Your task to perform on an android device: all mails in gmail Image 0: 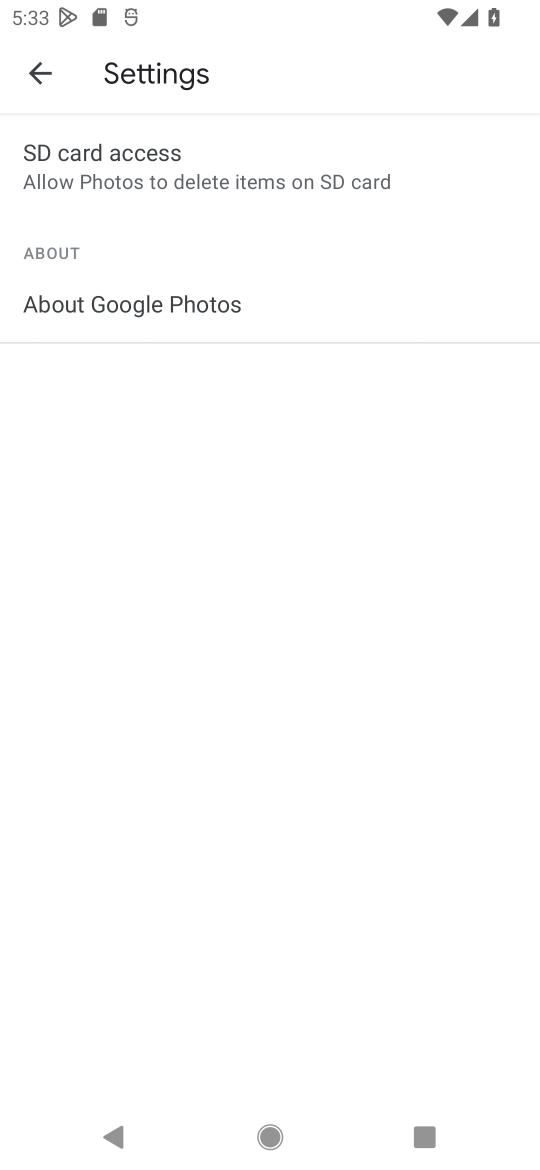
Step 0: click (270, 1127)
Your task to perform on an android device: all mails in gmail Image 1: 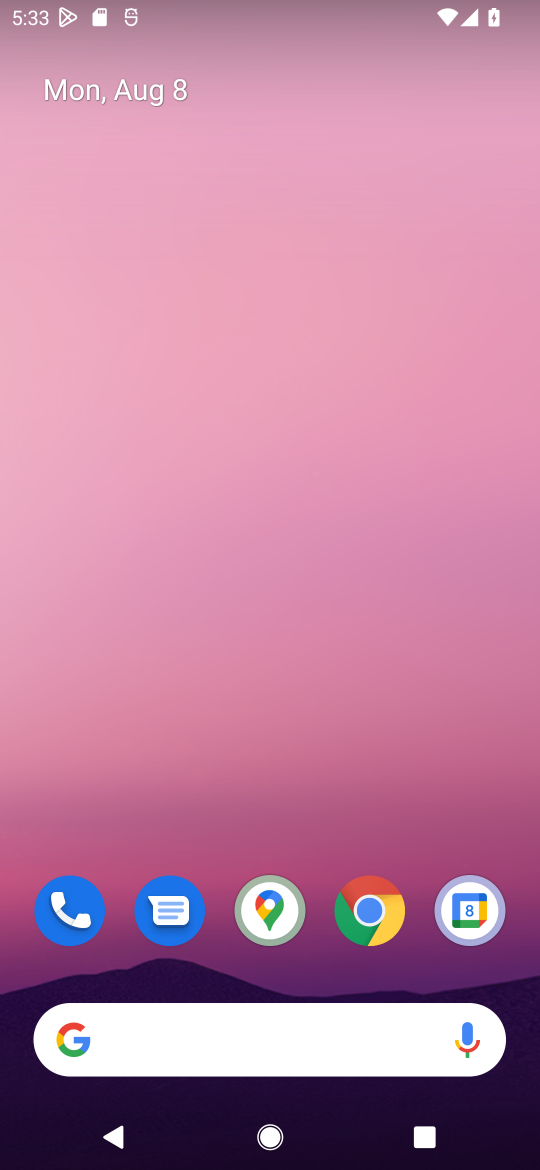
Step 1: drag from (162, 822) to (283, 260)
Your task to perform on an android device: all mails in gmail Image 2: 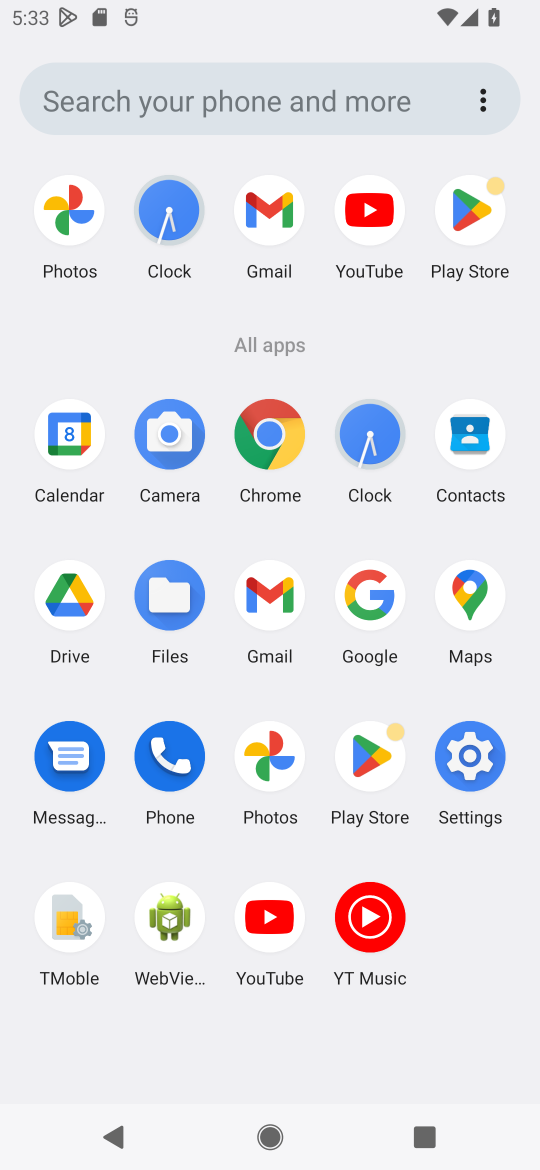
Step 2: click (272, 597)
Your task to perform on an android device: all mails in gmail Image 3: 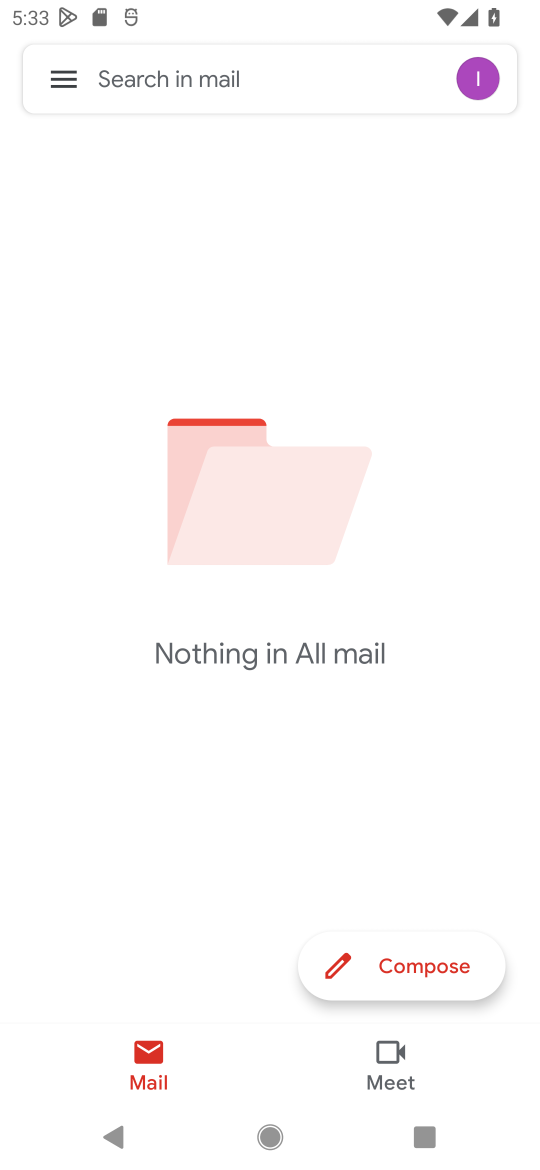
Step 3: click (60, 84)
Your task to perform on an android device: all mails in gmail Image 4: 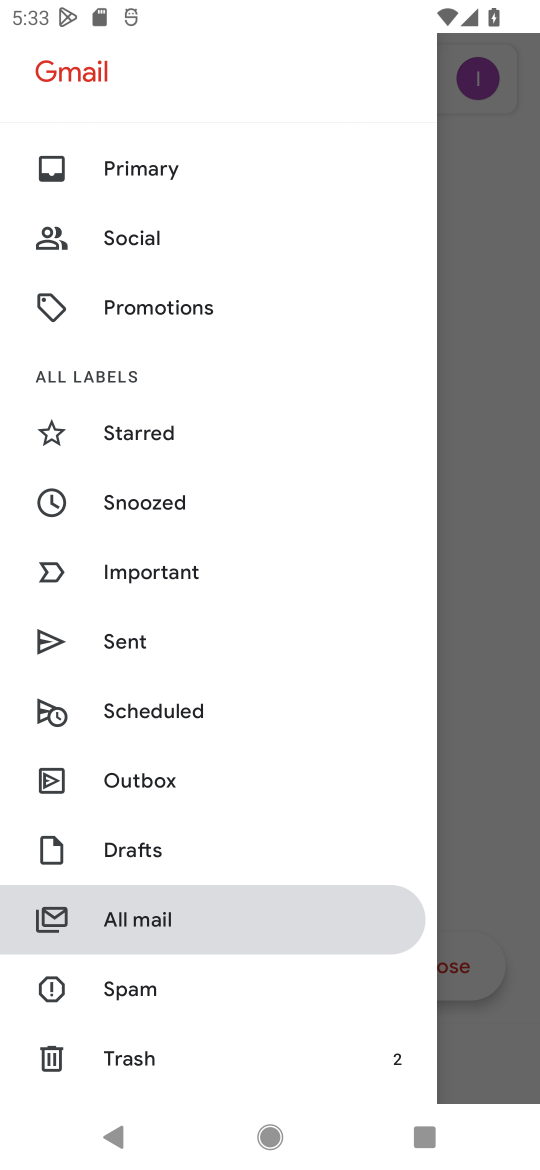
Step 4: click (177, 919)
Your task to perform on an android device: all mails in gmail Image 5: 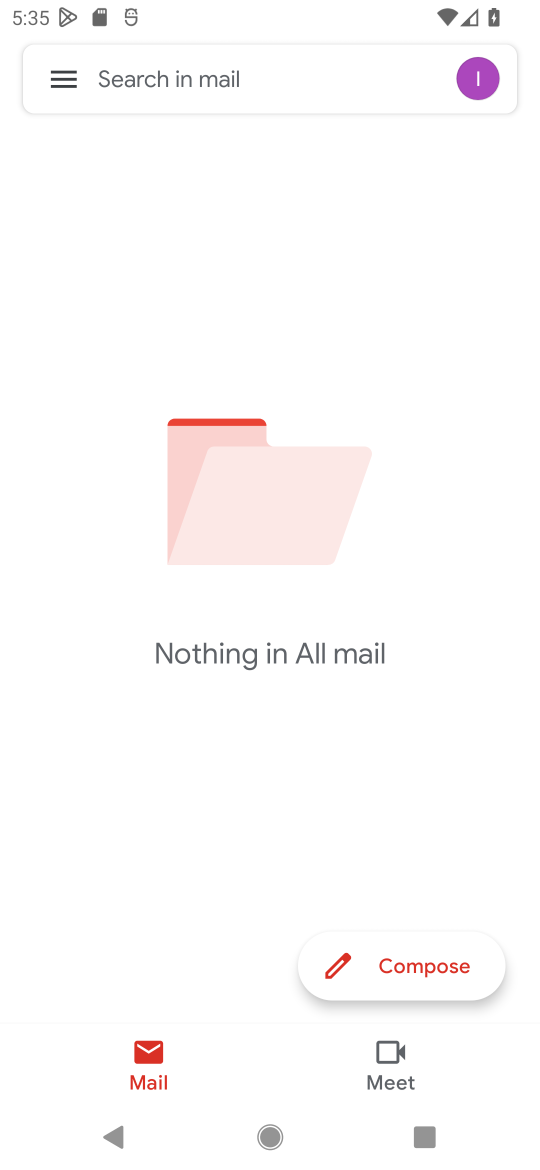
Step 5: task complete